Your task to perform on an android device: open chrome and create a bookmark for the current page Image 0: 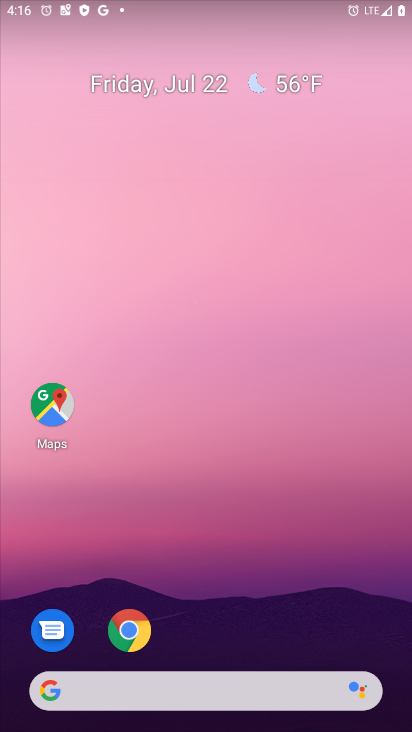
Step 0: drag from (171, 697) to (221, 143)
Your task to perform on an android device: open chrome and create a bookmark for the current page Image 1: 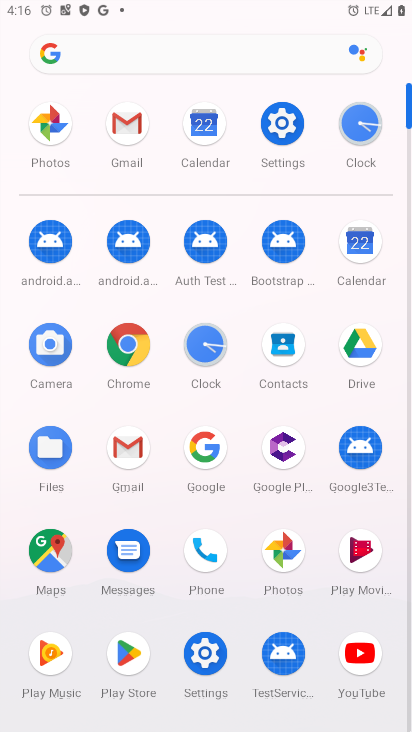
Step 1: click (143, 348)
Your task to perform on an android device: open chrome and create a bookmark for the current page Image 2: 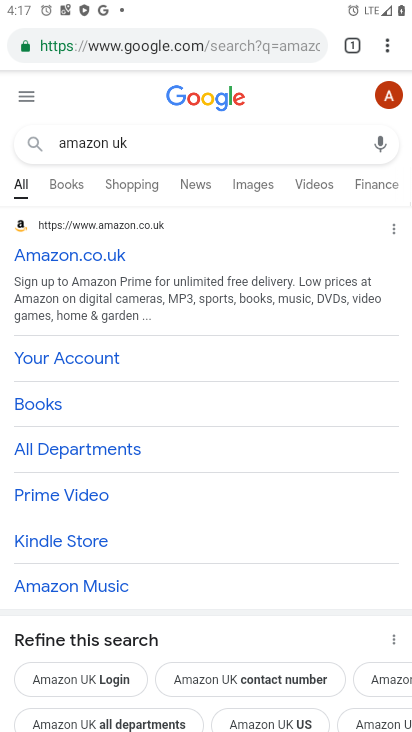
Step 2: task complete